Your task to perform on an android device: Open the contacts app Image 0: 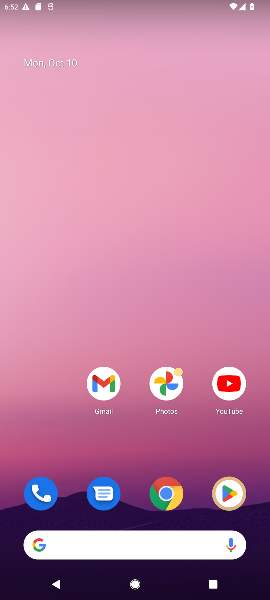
Step 0: drag from (133, 516) to (111, 36)
Your task to perform on an android device: Open the contacts app Image 1: 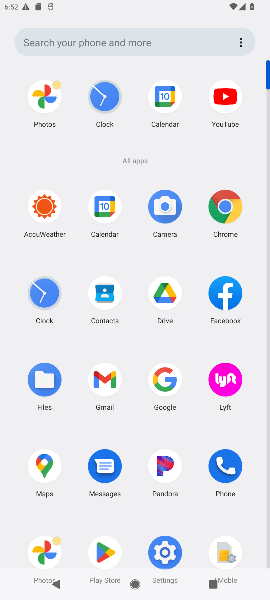
Step 1: click (165, 390)
Your task to perform on an android device: Open the contacts app Image 2: 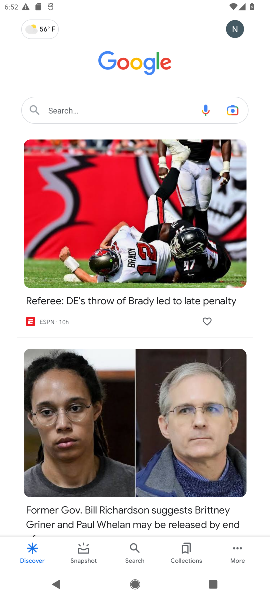
Step 2: click (74, 107)
Your task to perform on an android device: Open the contacts app Image 3: 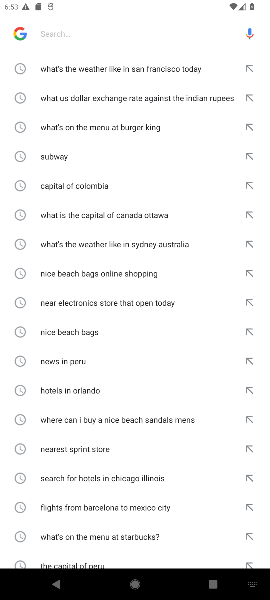
Step 3: press home button
Your task to perform on an android device: Open the contacts app Image 4: 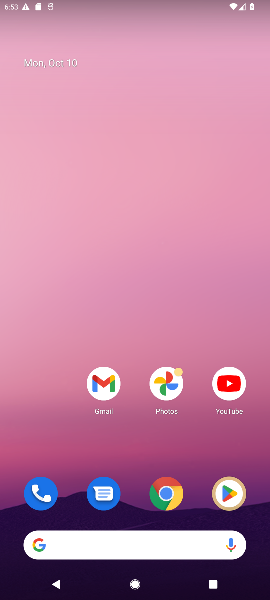
Step 4: drag from (131, 484) to (183, 26)
Your task to perform on an android device: Open the contacts app Image 5: 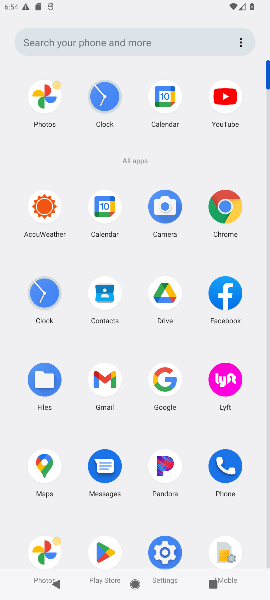
Step 5: drag from (199, 440) to (206, 356)
Your task to perform on an android device: Open the contacts app Image 6: 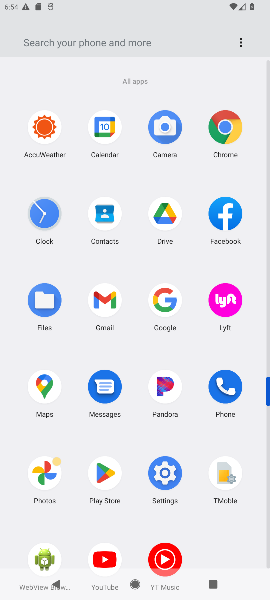
Step 6: click (97, 216)
Your task to perform on an android device: Open the contacts app Image 7: 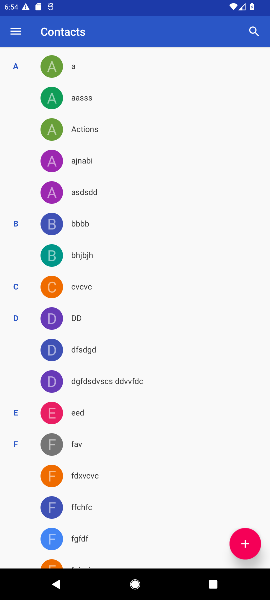
Step 7: task complete